Your task to perform on an android device: Open Yahoo.com Image 0: 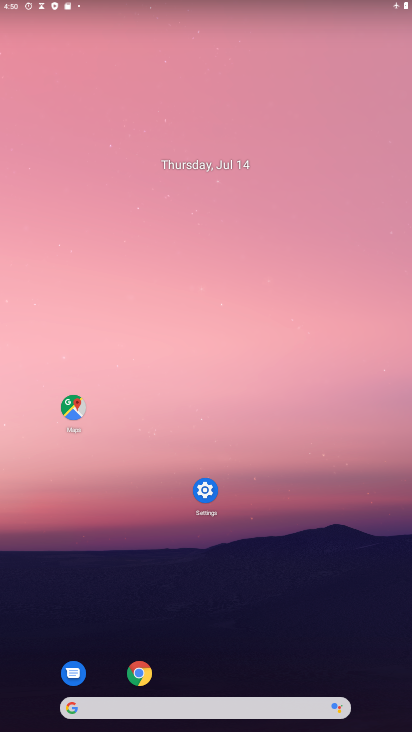
Step 0: press back button
Your task to perform on an android device: Open Yahoo.com Image 1: 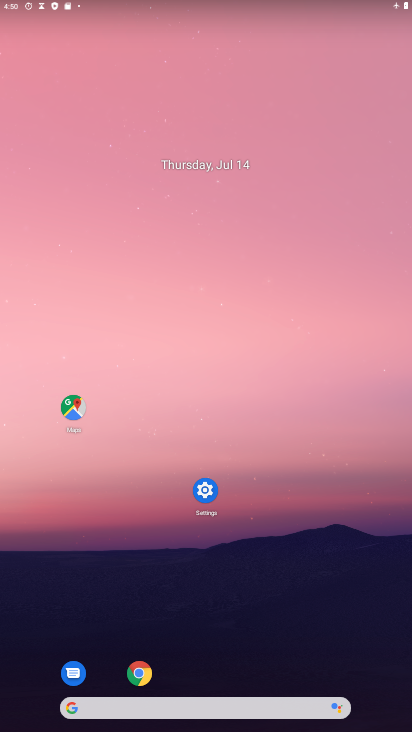
Step 1: drag from (297, 630) to (151, 17)
Your task to perform on an android device: Open Yahoo.com Image 2: 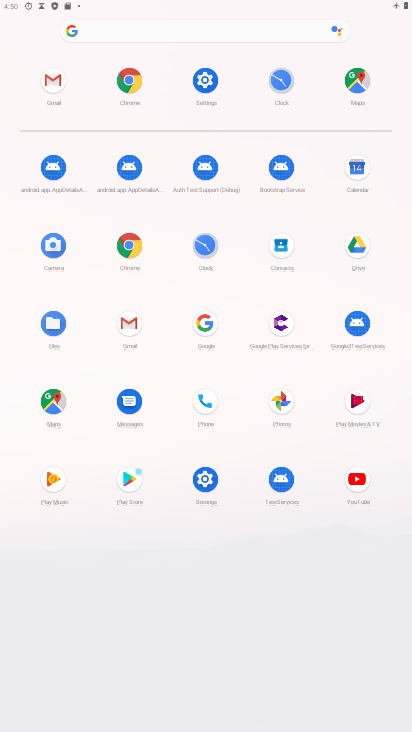
Step 2: click (205, 87)
Your task to perform on an android device: Open Yahoo.com Image 3: 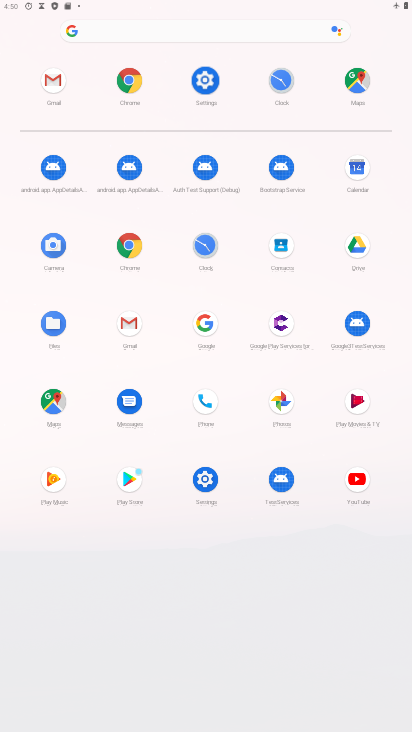
Step 3: click (206, 86)
Your task to perform on an android device: Open Yahoo.com Image 4: 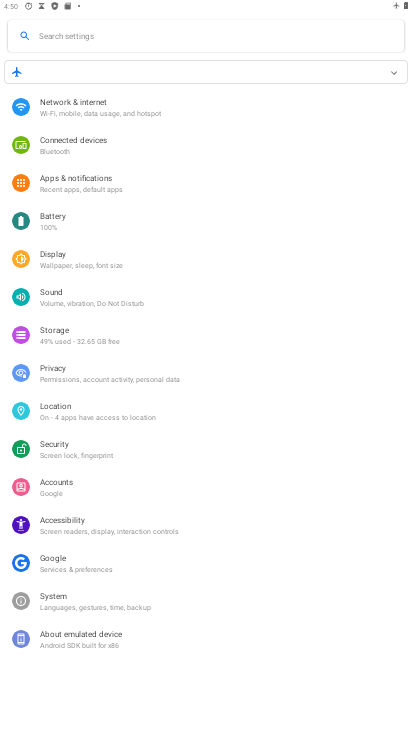
Step 4: click (76, 104)
Your task to perform on an android device: Open Yahoo.com Image 5: 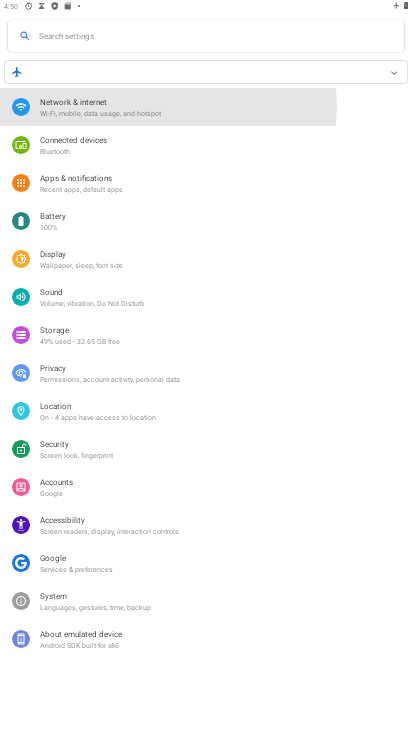
Step 5: click (76, 104)
Your task to perform on an android device: Open Yahoo.com Image 6: 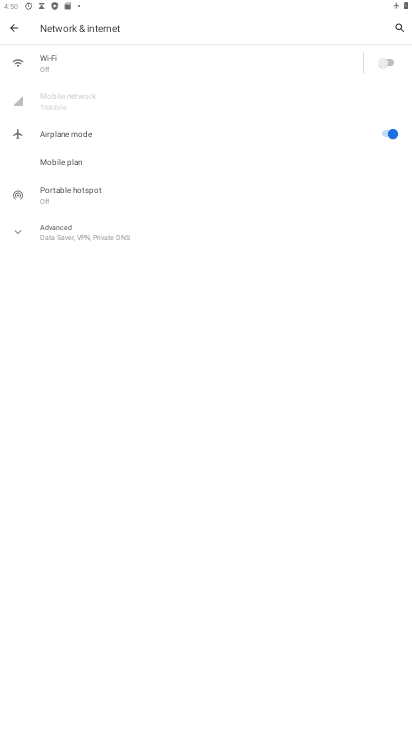
Step 6: click (383, 60)
Your task to perform on an android device: Open Yahoo.com Image 7: 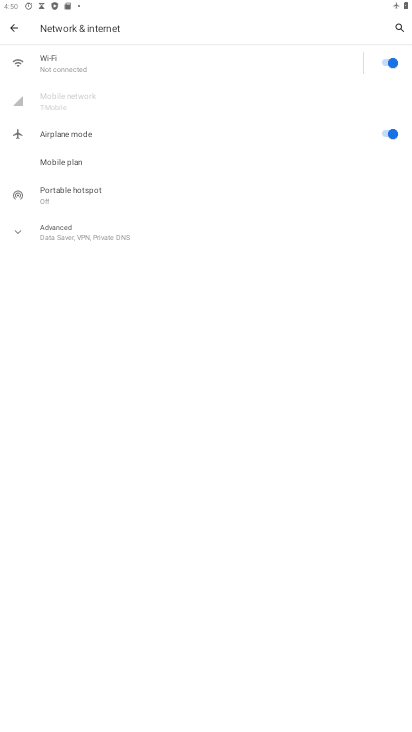
Step 7: click (394, 138)
Your task to perform on an android device: Open Yahoo.com Image 8: 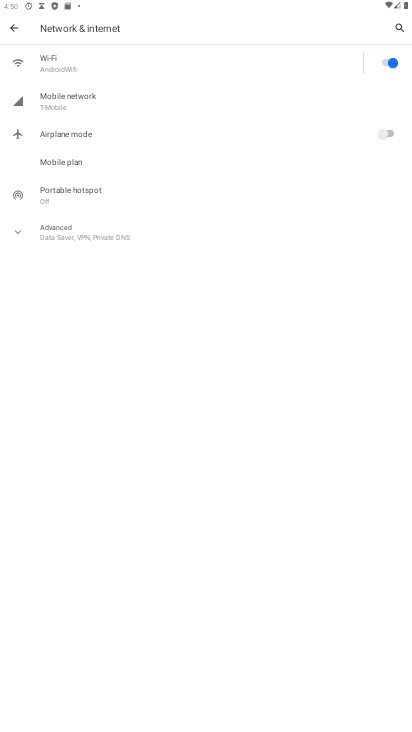
Step 8: press back button
Your task to perform on an android device: Open Yahoo.com Image 9: 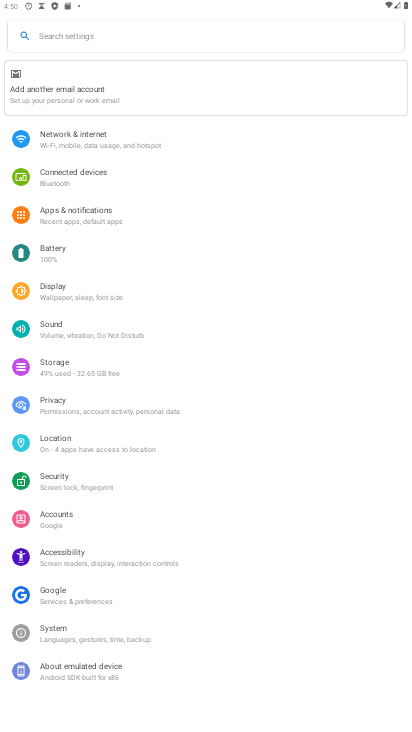
Step 9: press home button
Your task to perform on an android device: Open Yahoo.com Image 10: 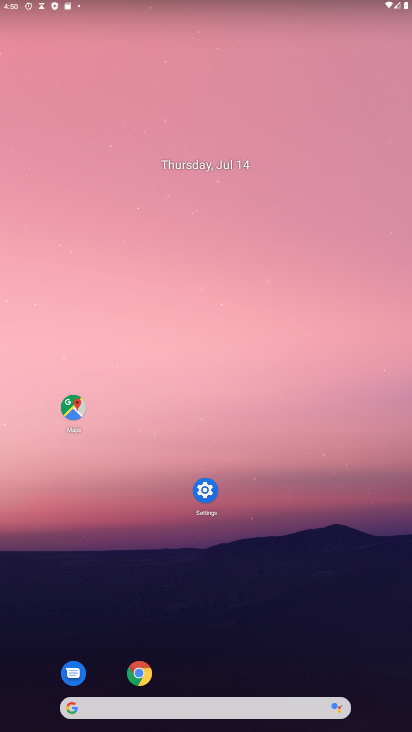
Step 10: drag from (237, 646) to (219, 115)
Your task to perform on an android device: Open Yahoo.com Image 11: 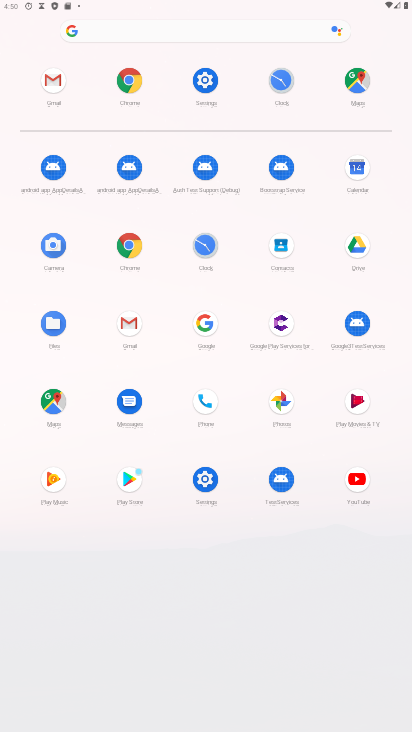
Step 11: click (135, 84)
Your task to perform on an android device: Open Yahoo.com Image 12: 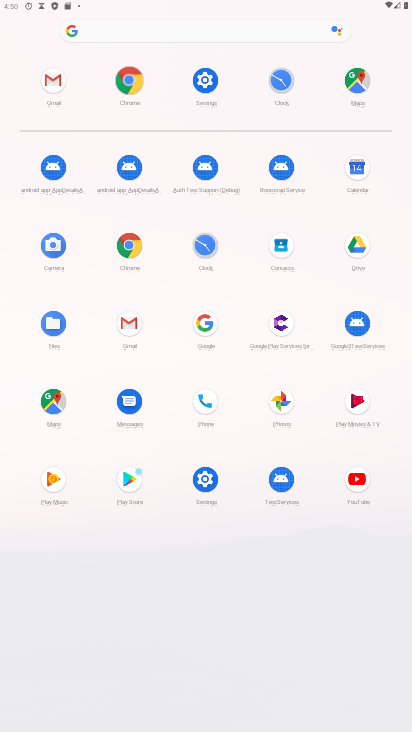
Step 12: click (135, 84)
Your task to perform on an android device: Open Yahoo.com Image 13: 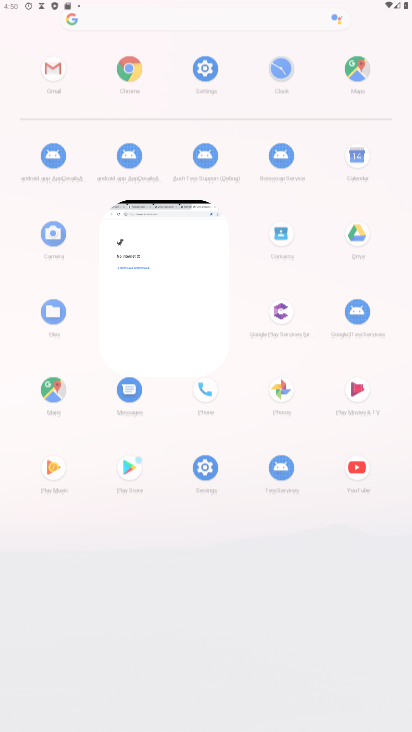
Step 13: click (135, 84)
Your task to perform on an android device: Open Yahoo.com Image 14: 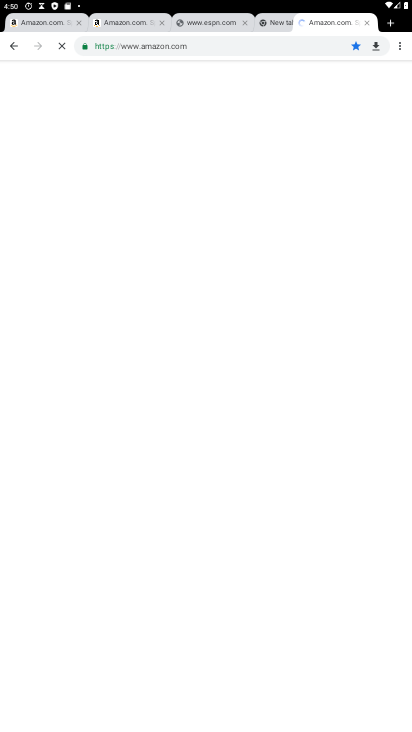
Step 14: click (397, 47)
Your task to perform on an android device: Open Yahoo.com Image 15: 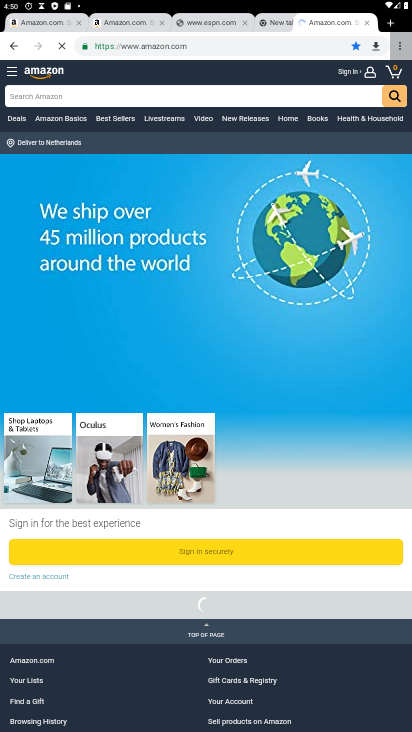
Step 15: click (398, 47)
Your task to perform on an android device: Open Yahoo.com Image 16: 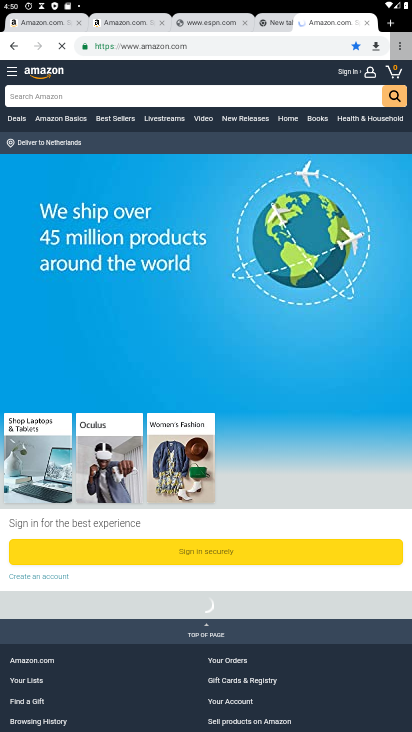
Step 16: drag from (398, 47) to (360, 179)
Your task to perform on an android device: Open Yahoo.com Image 17: 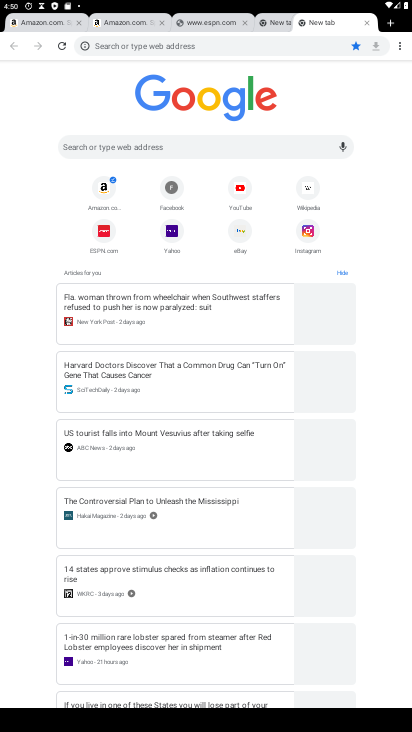
Step 17: click (168, 231)
Your task to perform on an android device: Open Yahoo.com Image 18: 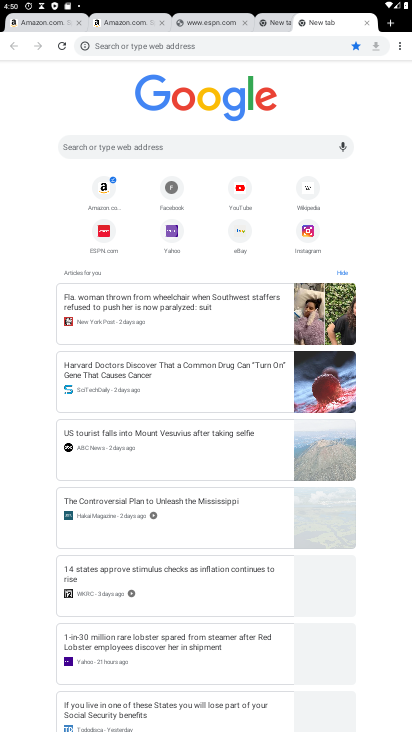
Step 18: click (167, 233)
Your task to perform on an android device: Open Yahoo.com Image 19: 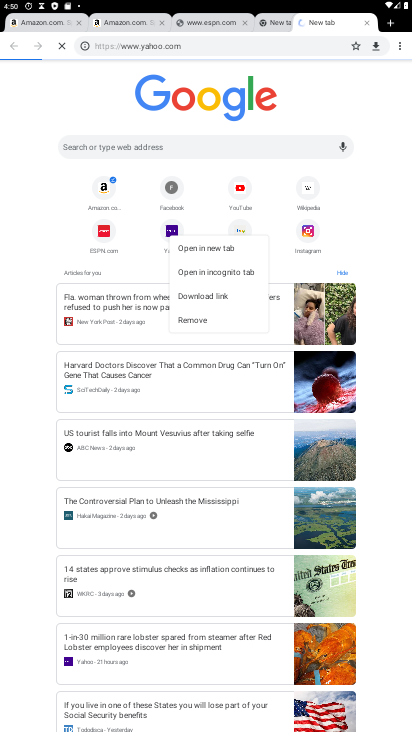
Step 19: click (175, 236)
Your task to perform on an android device: Open Yahoo.com Image 20: 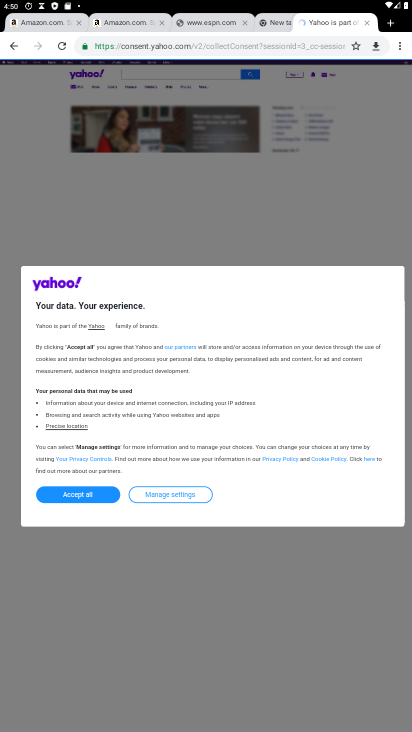
Step 20: click (181, 244)
Your task to perform on an android device: Open Yahoo.com Image 21: 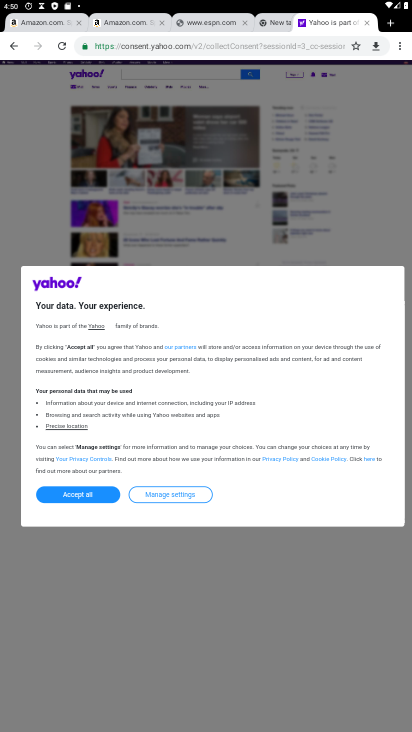
Step 21: task complete